Your task to perform on an android device: delete browsing data in the chrome app Image 0: 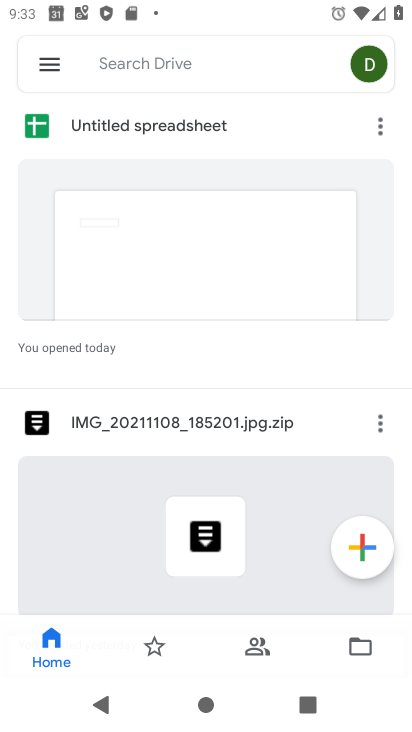
Step 0: press home button
Your task to perform on an android device: delete browsing data in the chrome app Image 1: 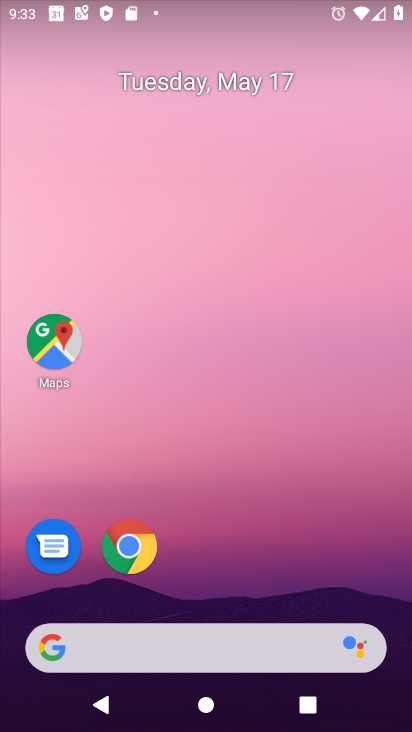
Step 1: click (140, 550)
Your task to perform on an android device: delete browsing data in the chrome app Image 2: 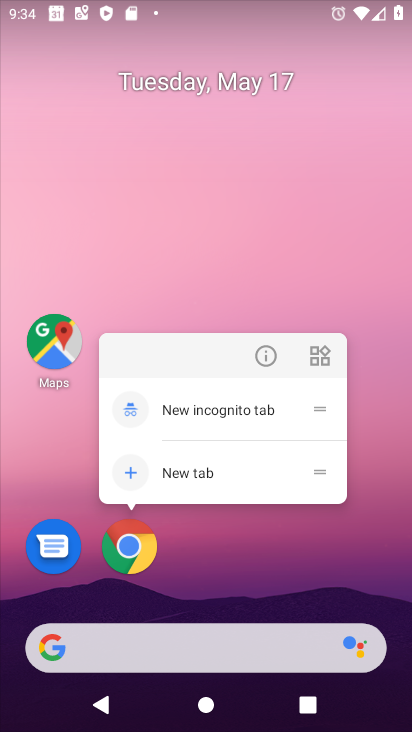
Step 2: click (138, 556)
Your task to perform on an android device: delete browsing data in the chrome app Image 3: 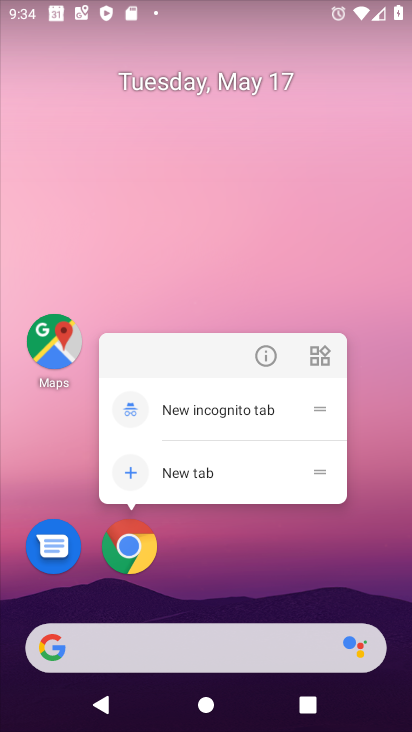
Step 3: click (126, 542)
Your task to perform on an android device: delete browsing data in the chrome app Image 4: 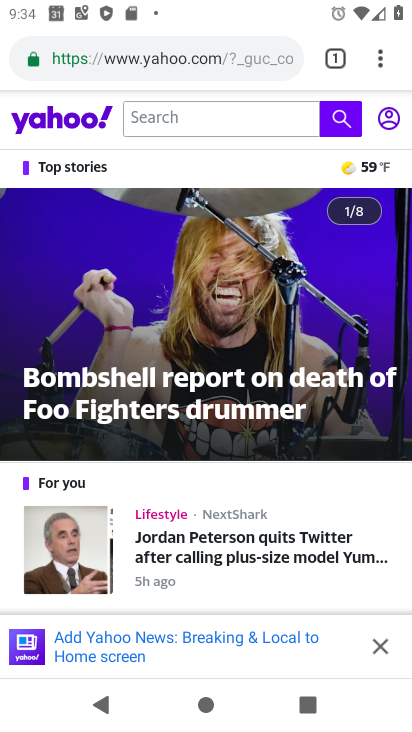
Step 4: click (382, 63)
Your task to perform on an android device: delete browsing data in the chrome app Image 5: 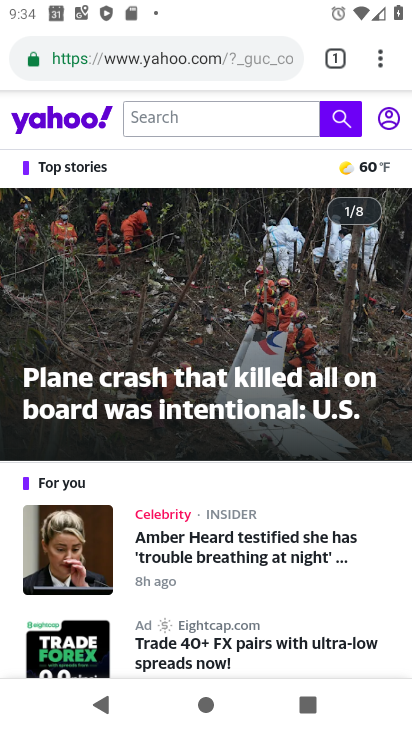
Step 5: click (382, 63)
Your task to perform on an android device: delete browsing data in the chrome app Image 6: 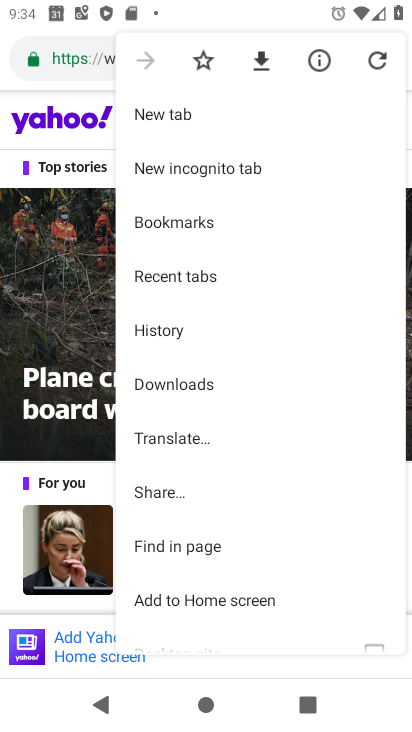
Step 6: click (222, 332)
Your task to perform on an android device: delete browsing data in the chrome app Image 7: 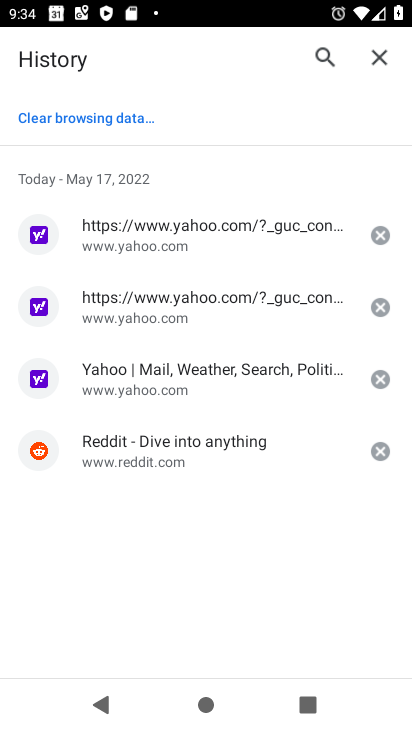
Step 7: click (65, 124)
Your task to perform on an android device: delete browsing data in the chrome app Image 8: 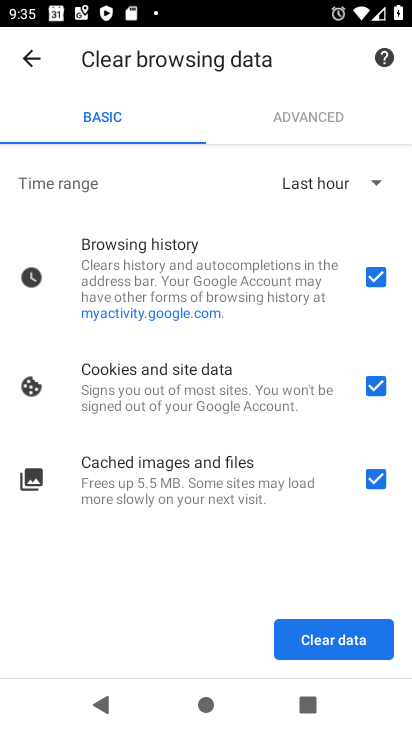
Step 8: click (296, 642)
Your task to perform on an android device: delete browsing data in the chrome app Image 9: 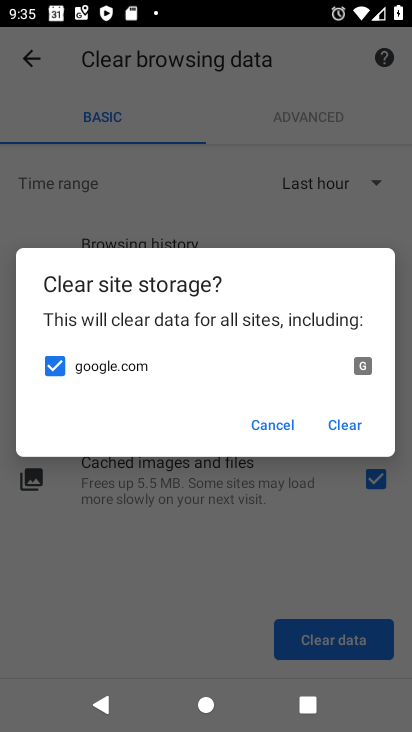
Step 9: click (352, 426)
Your task to perform on an android device: delete browsing data in the chrome app Image 10: 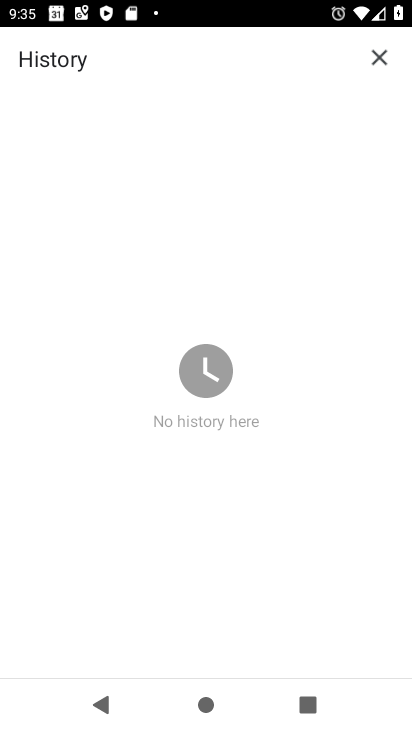
Step 10: task complete